Your task to perform on an android device: uninstall "Cash App" Image 0: 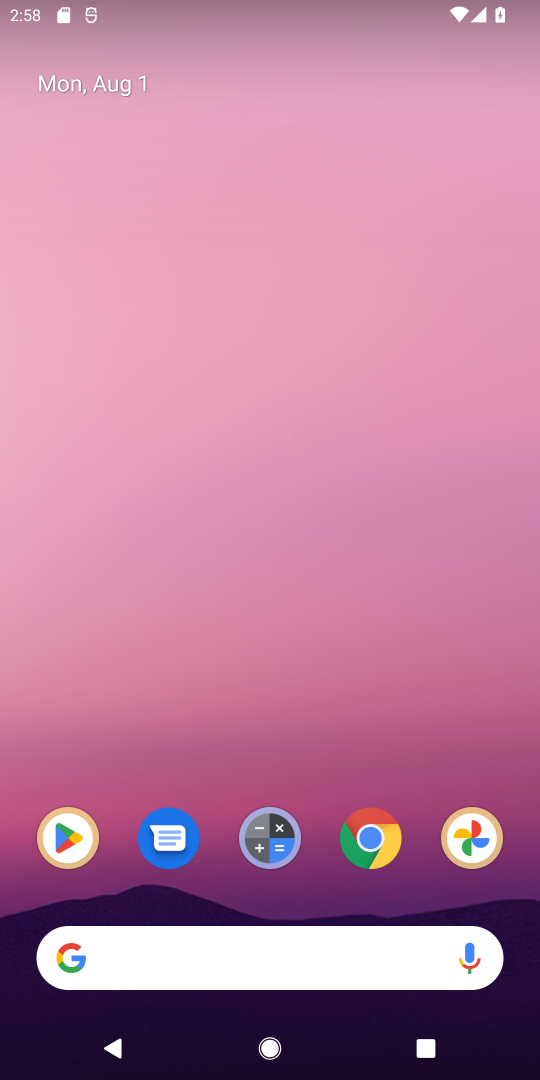
Step 0: click (73, 835)
Your task to perform on an android device: uninstall "Cash App" Image 1: 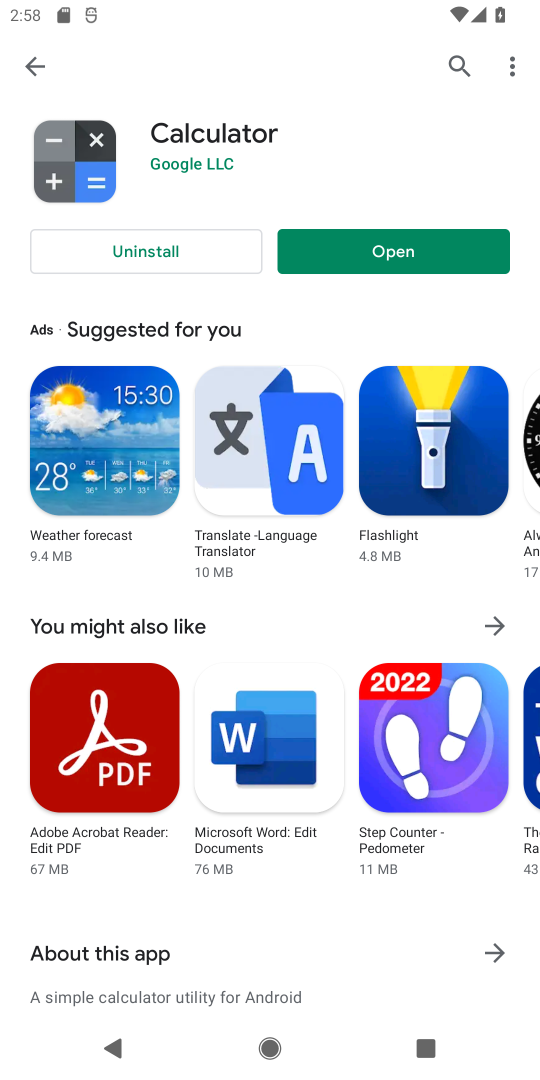
Step 1: click (452, 63)
Your task to perform on an android device: uninstall "Cash App" Image 2: 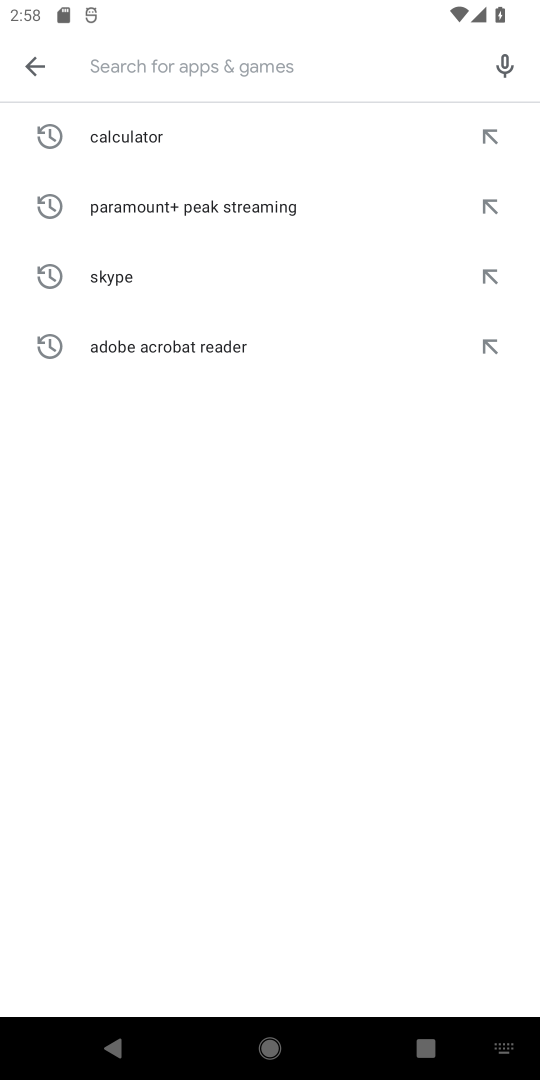
Step 2: type "Cash App"
Your task to perform on an android device: uninstall "Cash App" Image 3: 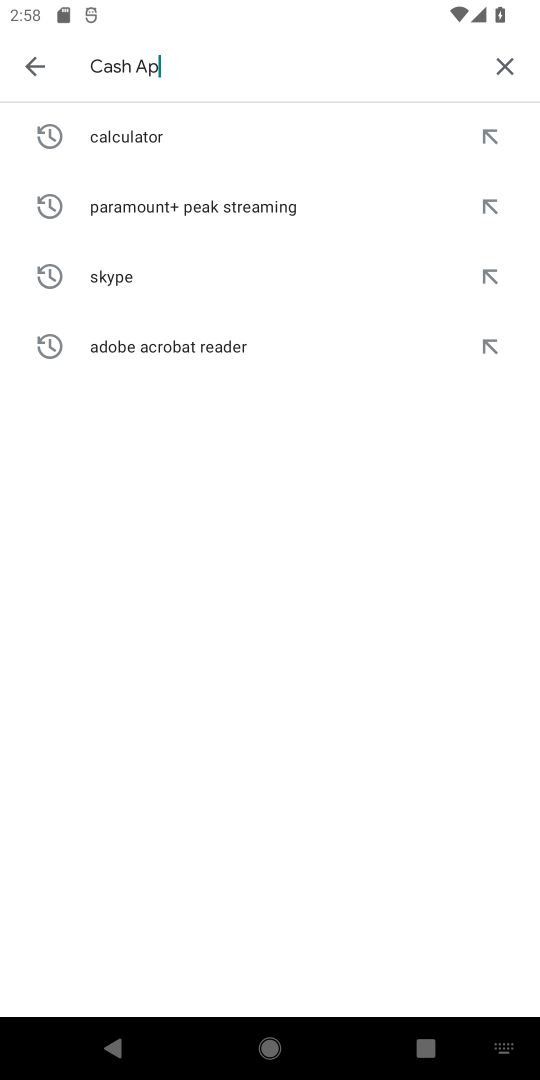
Step 3: type ""
Your task to perform on an android device: uninstall "Cash App" Image 4: 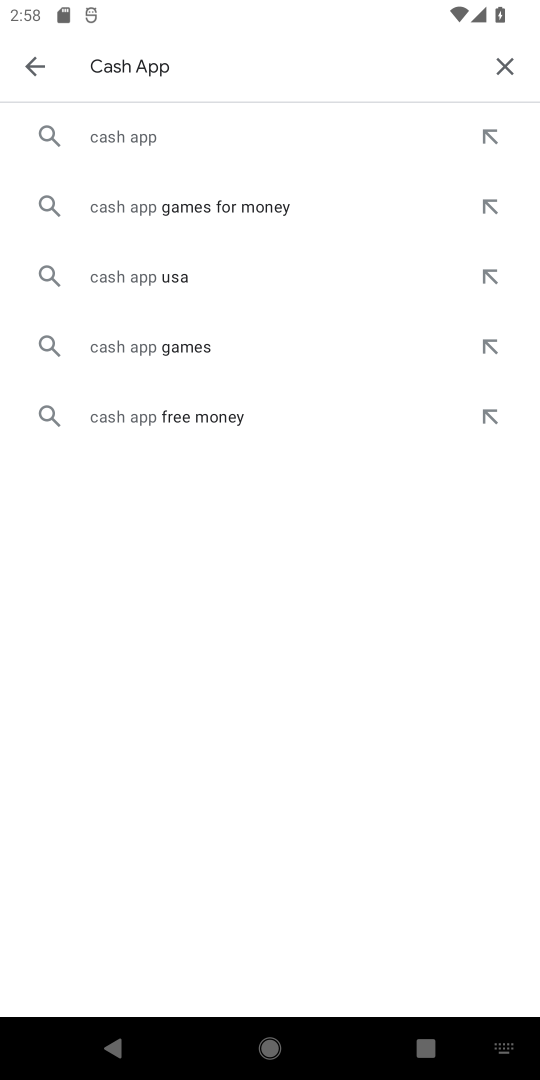
Step 4: click (147, 138)
Your task to perform on an android device: uninstall "Cash App" Image 5: 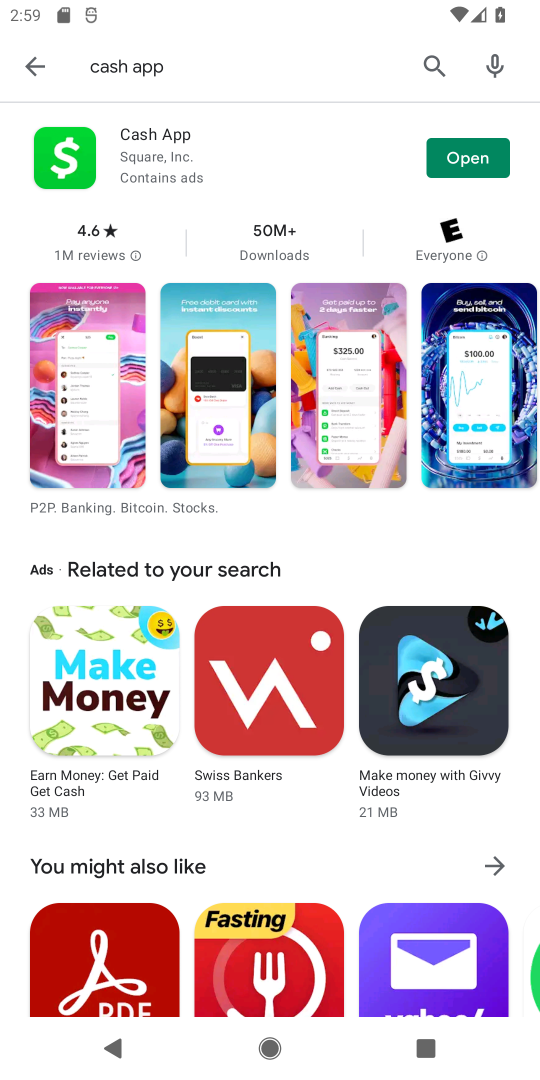
Step 5: click (214, 162)
Your task to perform on an android device: uninstall "Cash App" Image 6: 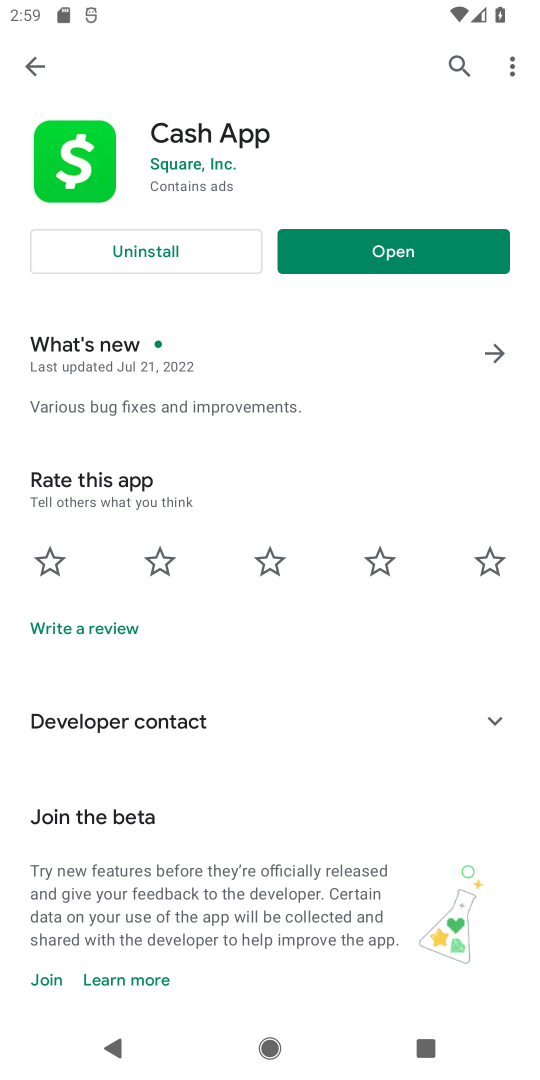
Step 6: click (143, 242)
Your task to perform on an android device: uninstall "Cash App" Image 7: 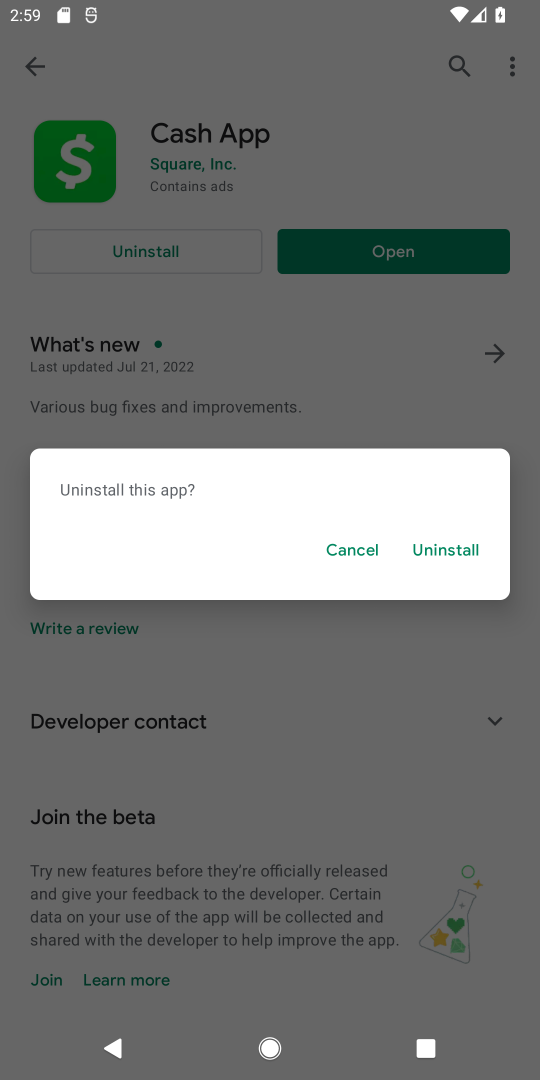
Step 7: click (460, 546)
Your task to perform on an android device: uninstall "Cash App" Image 8: 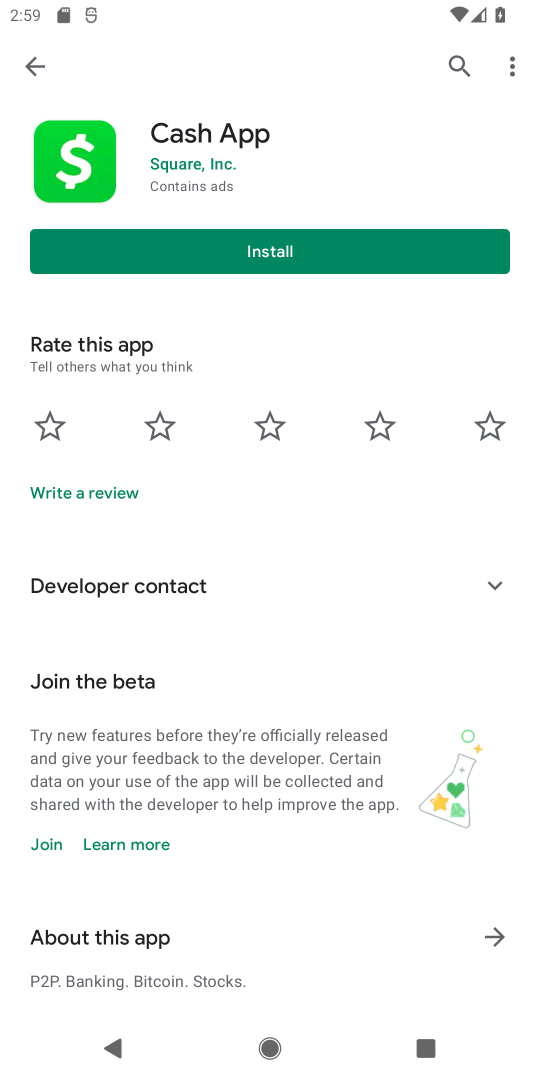
Step 8: task complete